Your task to perform on an android device: open app "Adobe Acrobat Reader" (install if not already installed) and go to login screen Image 0: 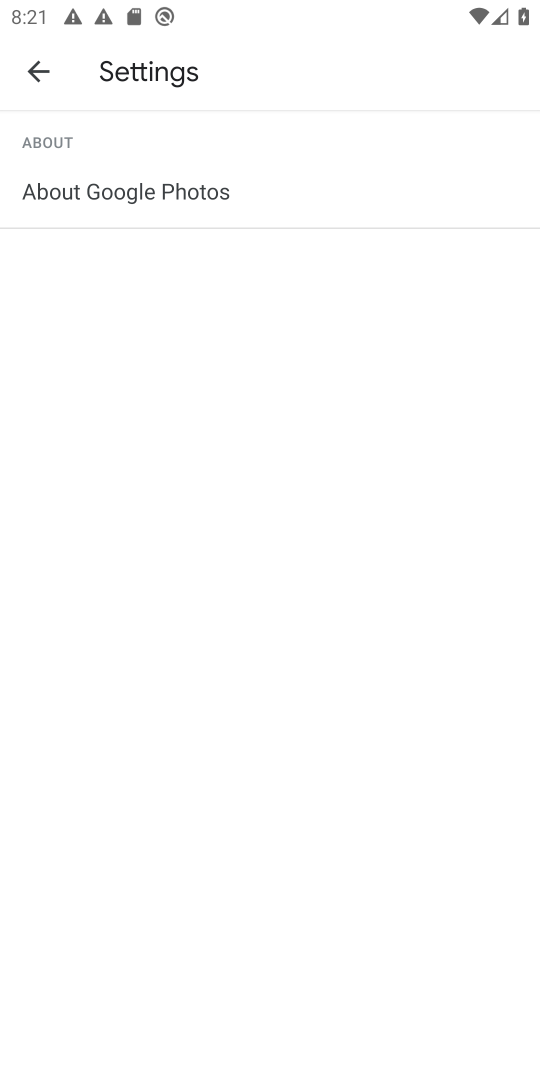
Step 0: press home button
Your task to perform on an android device: open app "Adobe Acrobat Reader" (install if not already installed) and go to login screen Image 1: 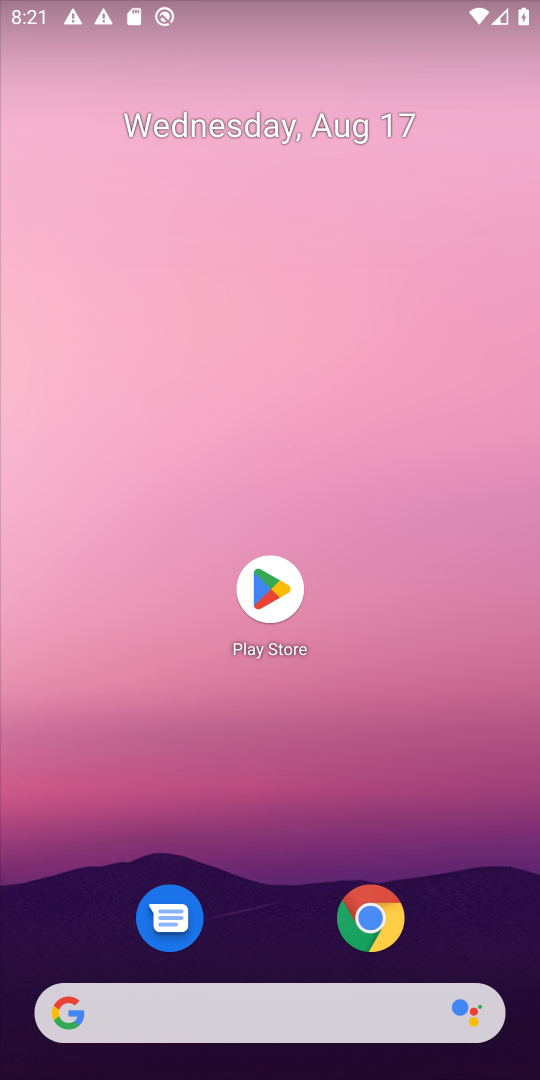
Step 1: click (276, 600)
Your task to perform on an android device: open app "Adobe Acrobat Reader" (install if not already installed) and go to login screen Image 2: 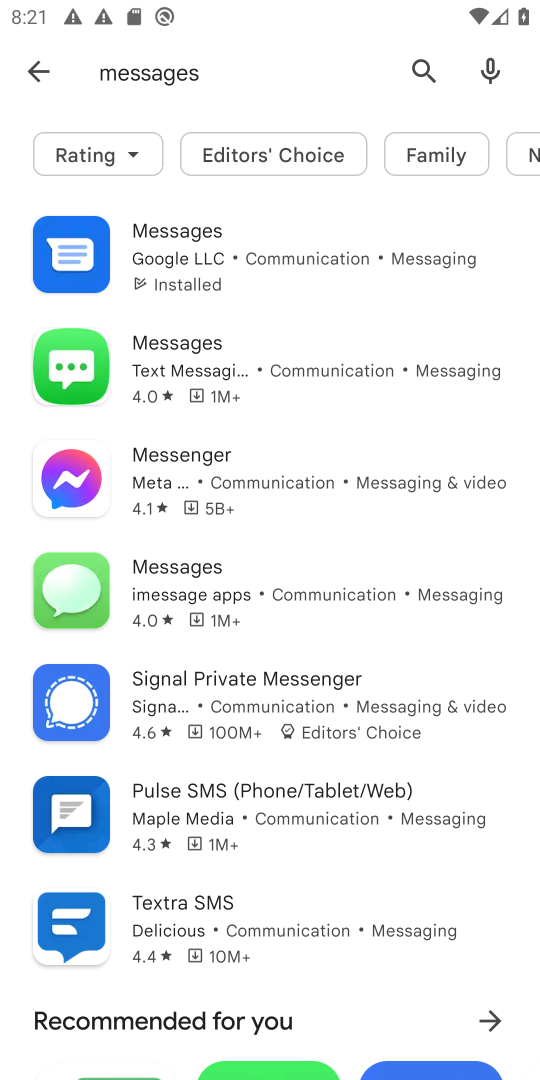
Step 2: click (426, 61)
Your task to perform on an android device: open app "Adobe Acrobat Reader" (install if not already installed) and go to login screen Image 3: 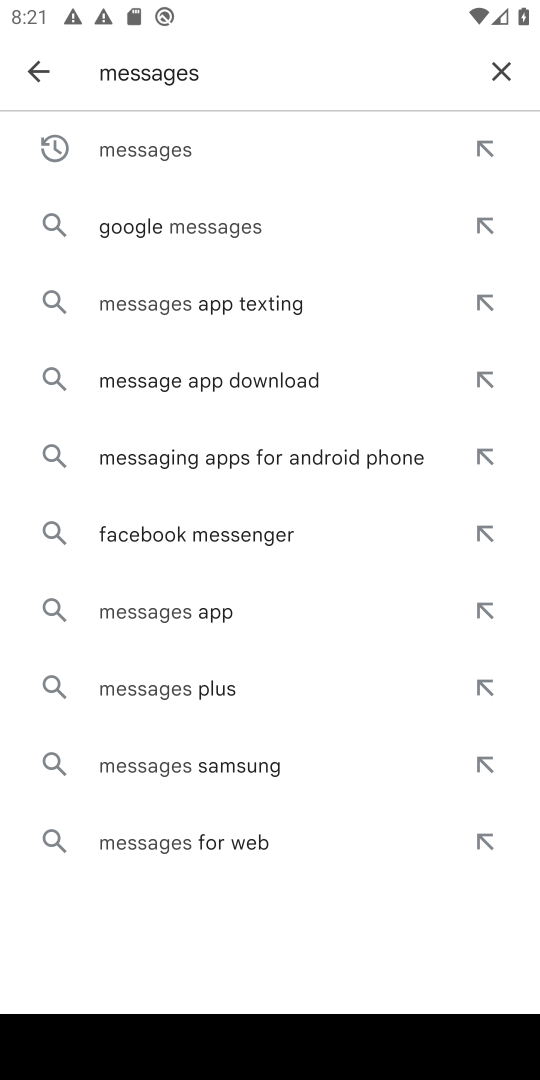
Step 3: click (508, 68)
Your task to perform on an android device: open app "Adobe Acrobat Reader" (install if not already installed) and go to login screen Image 4: 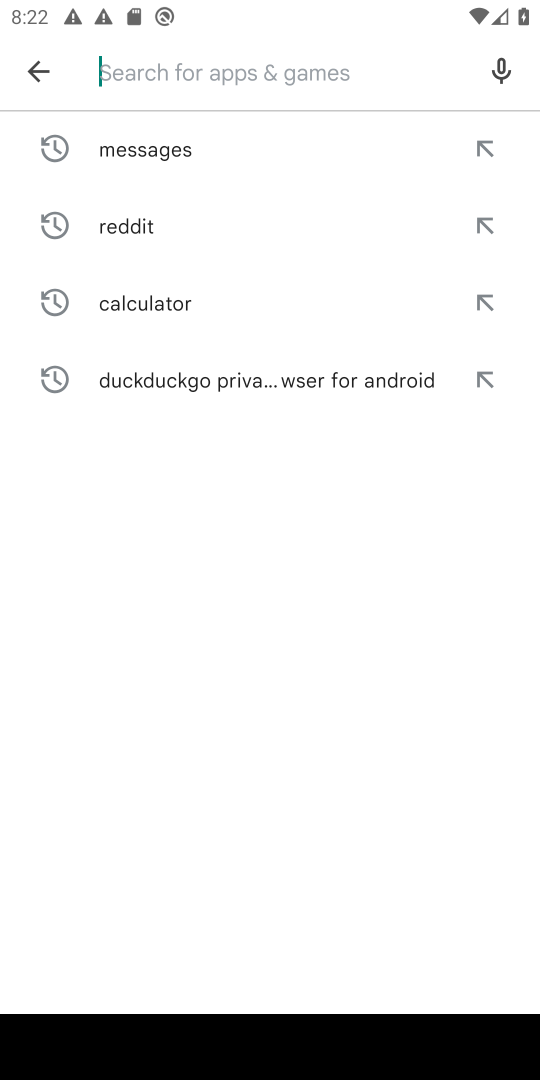
Step 4: type "Adobe Acrobat Reader"
Your task to perform on an android device: open app "Adobe Acrobat Reader" (install if not already installed) and go to login screen Image 5: 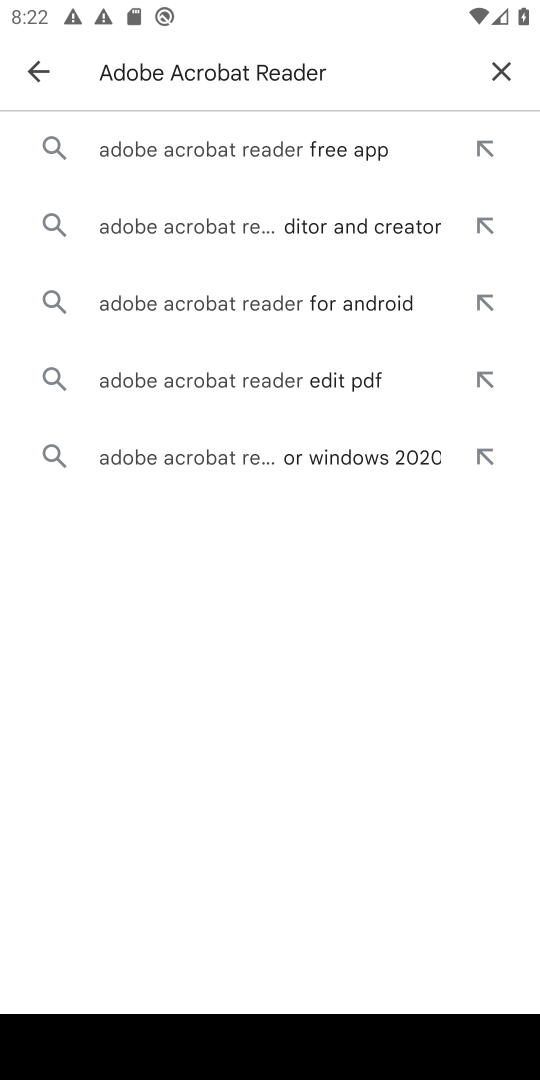
Step 5: click (254, 148)
Your task to perform on an android device: open app "Adobe Acrobat Reader" (install if not already installed) and go to login screen Image 6: 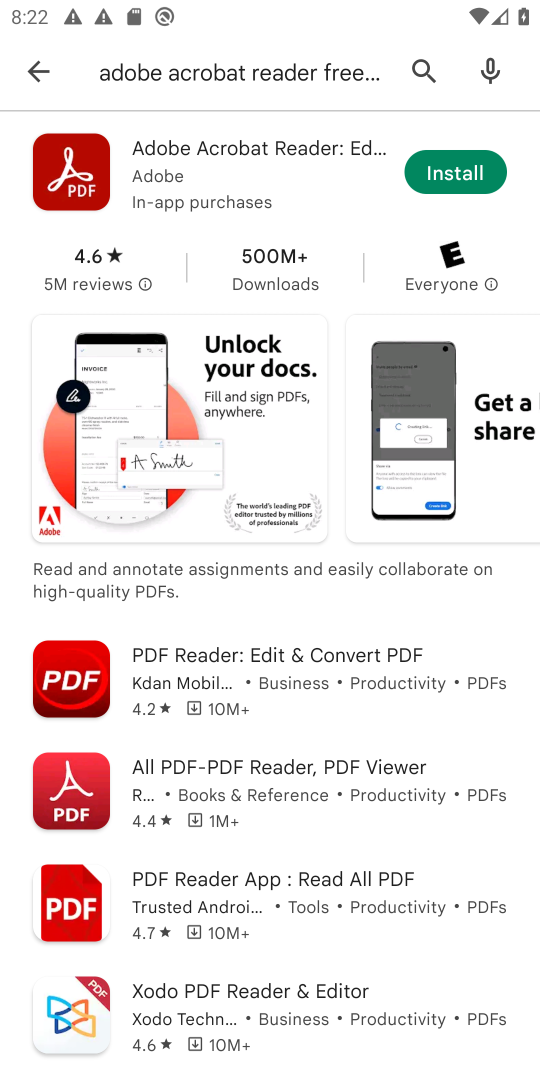
Step 6: click (477, 181)
Your task to perform on an android device: open app "Adobe Acrobat Reader" (install if not already installed) and go to login screen Image 7: 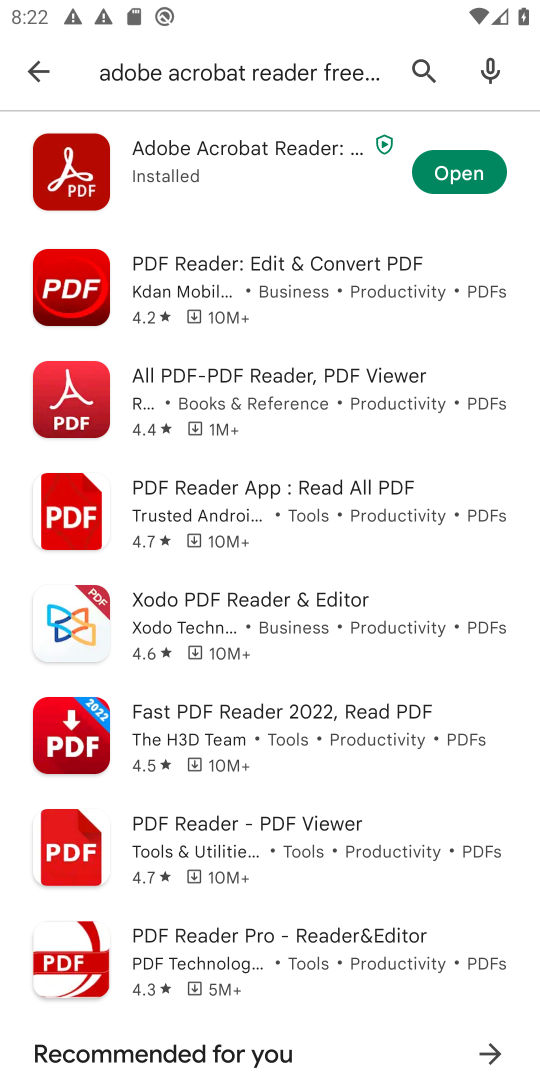
Step 7: click (452, 175)
Your task to perform on an android device: open app "Adobe Acrobat Reader" (install if not already installed) and go to login screen Image 8: 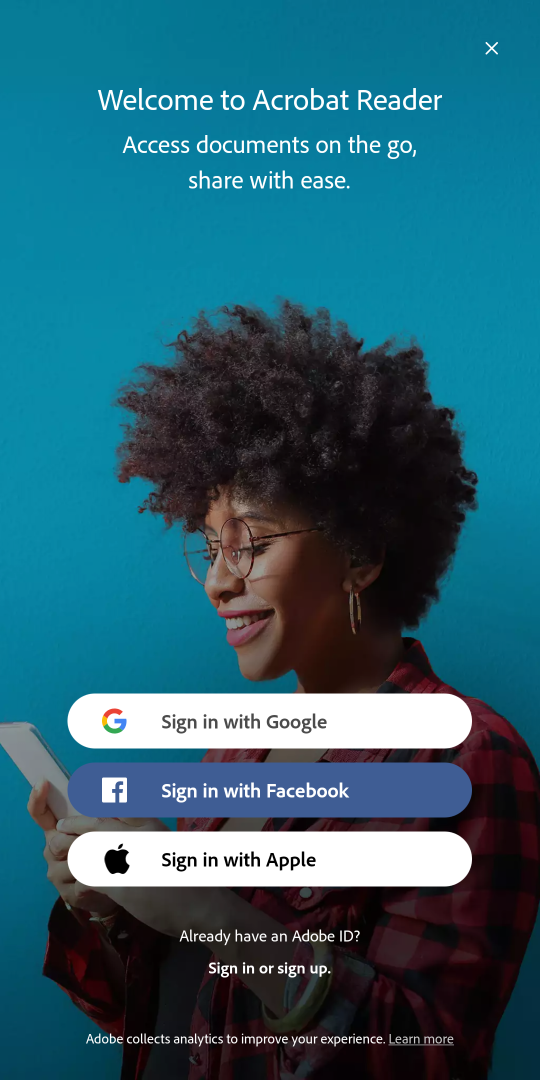
Step 8: click (288, 972)
Your task to perform on an android device: open app "Adobe Acrobat Reader" (install if not already installed) and go to login screen Image 9: 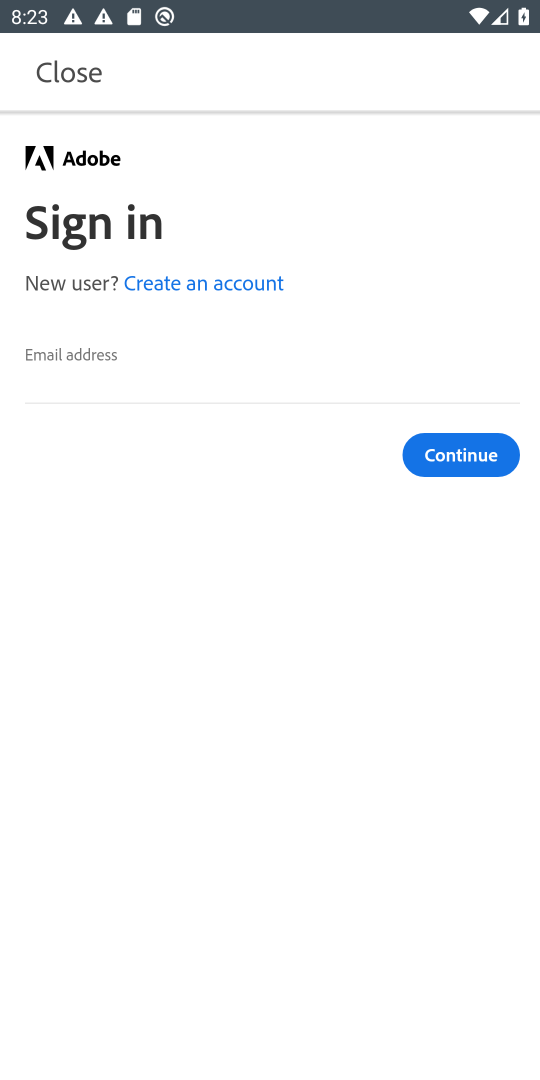
Step 9: task complete